Your task to perform on an android device: Check the news Image 0: 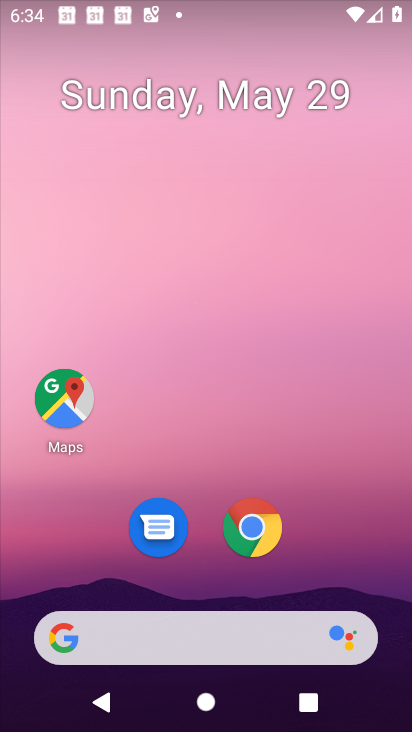
Step 0: drag from (399, 625) to (334, 170)
Your task to perform on an android device: Check the news Image 1: 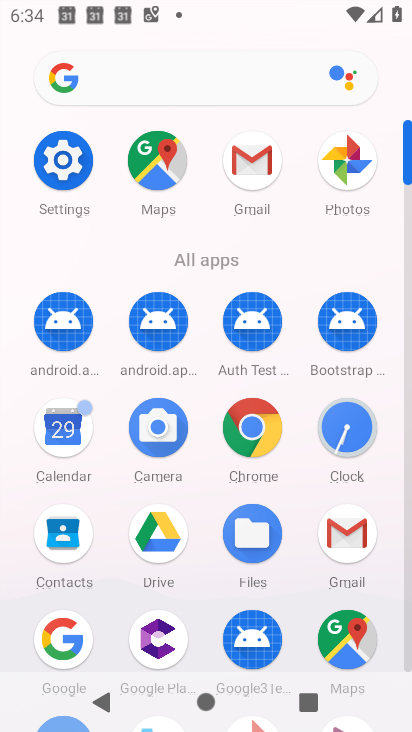
Step 1: click (52, 640)
Your task to perform on an android device: Check the news Image 2: 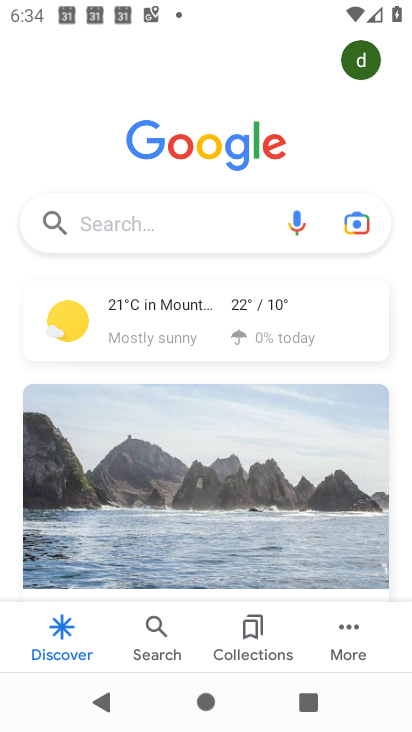
Step 2: click (147, 230)
Your task to perform on an android device: Check the news Image 3: 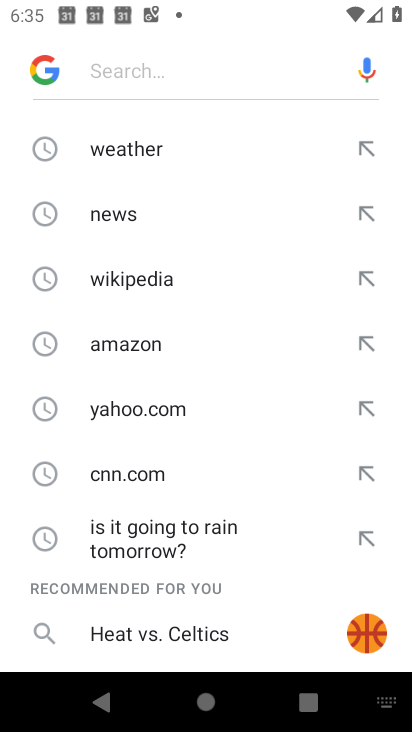
Step 3: click (145, 230)
Your task to perform on an android device: Check the news Image 4: 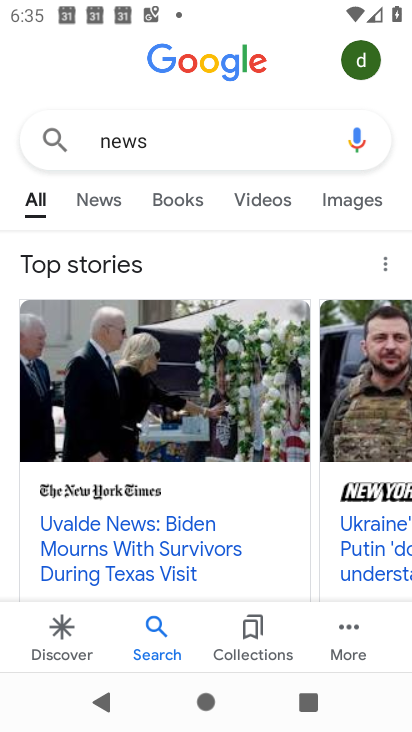
Step 4: task complete